Your task to perform on an android device: add a label to a message in the gmail app Image 0: 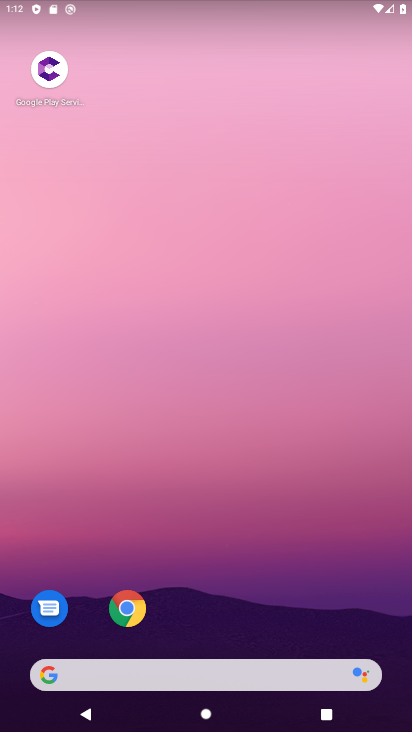
Step 0: drag from (333, 614) to (252, 10)
Your task to perform on an android device: add a label to a message in the gmail app Image 1: 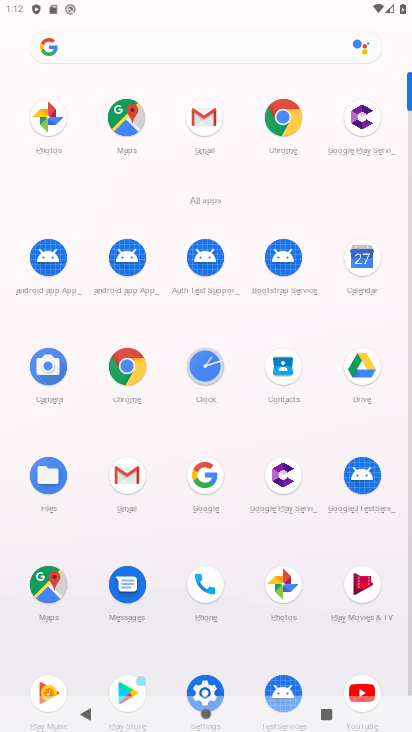
Step 1: click (128, 470)
Your task to perform on an android device: add a label to a message in the gmail app Image 2: 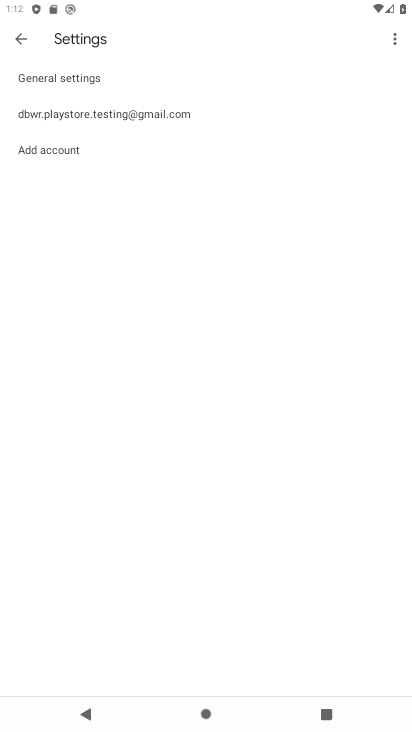
Step 2: press home button
Your task to perform on an android device: add a label to a message in the gmail app Image 3: 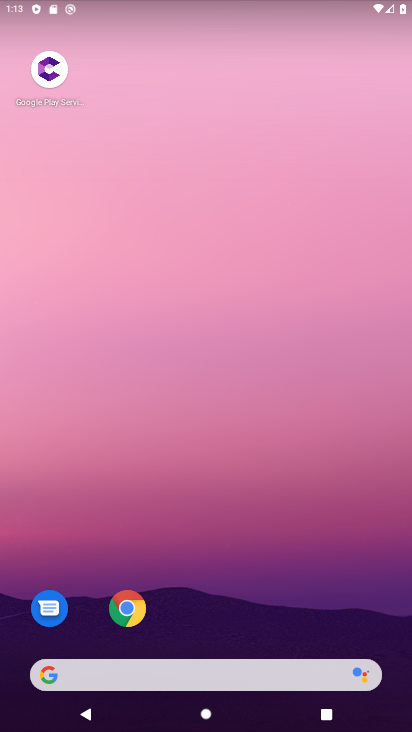
Step 3: drag from (345, 317) to (322, 114)
Your task to perform on an android device: add a label to a message in the gmail app Image 4: 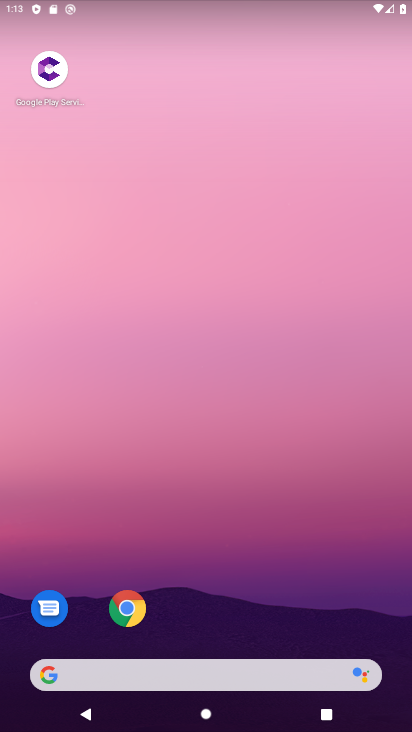
Step 4: drag from (389, 628) to (317, 62)
Your task to perform on an android device: add a label to a message in the gmail app Image 5: 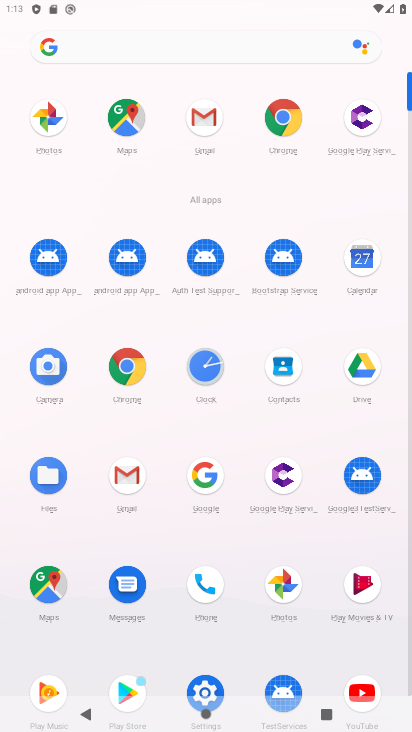
Step 5: click (125, 475)
Your task to perform on an android device: add a label to a message in the gmail app Image 6: 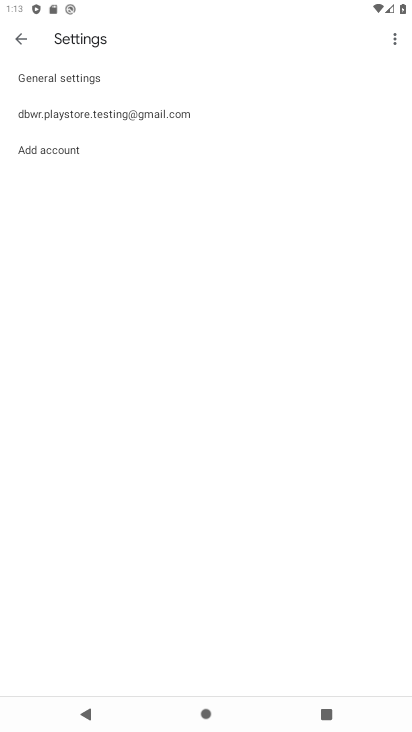
Step 6: press back button
Your task to perform on an android device: add a label to a message in the gmail app Image 7: 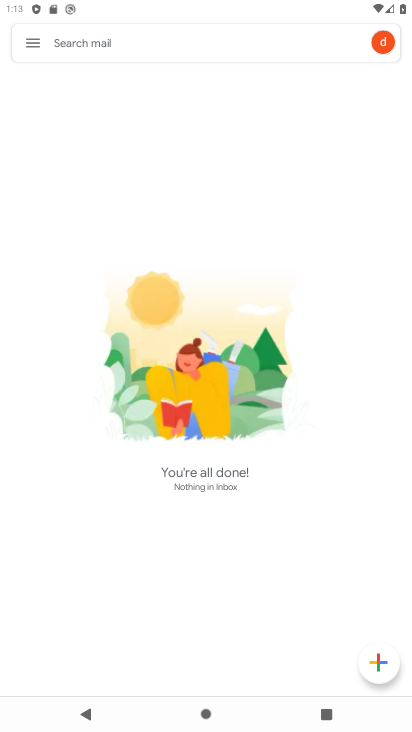
Step 7: click (30, 46)
Your task to perform on an android device: add a label to a message in the gmail app Image 8: 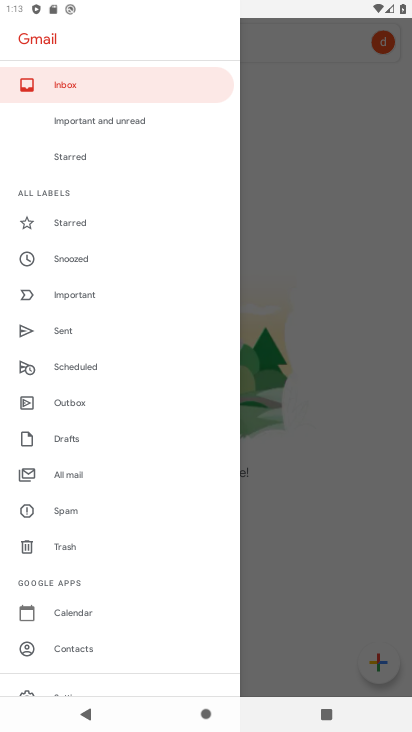
Step 8: click (69, 477)
Your task to perform on an android device: add a label to a message in the gmail app Image 9: 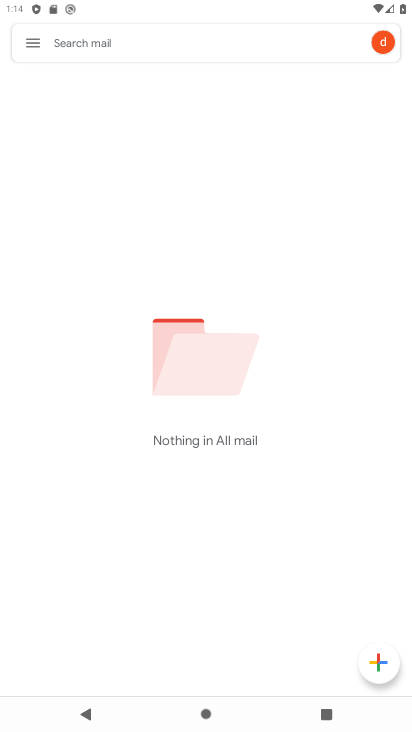
Step 9: task complete